Your task to perform on an android device: uninstall "Speedtest by Ookla" Image 0: 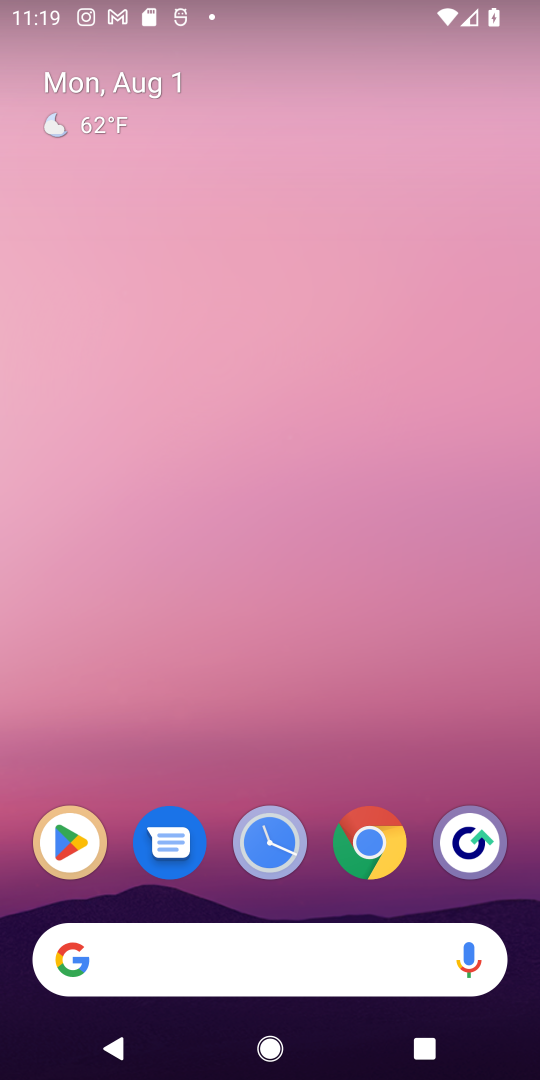
Step 0: click (60, 848)
Your task to perform on an android device: uninstall "Speedtest by Ookla" Image 1: 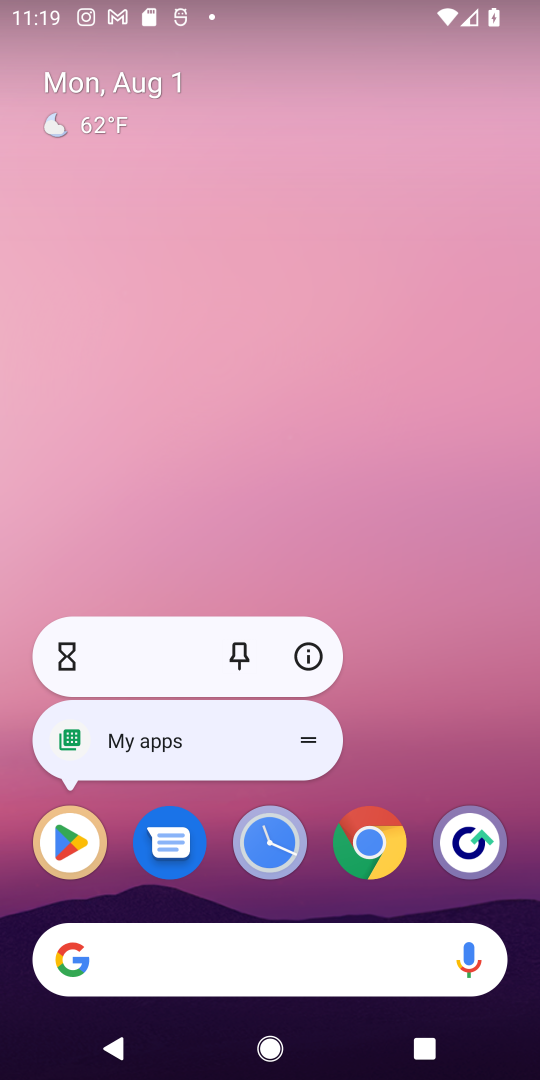
Step 1: click (58, 845)
Your task to perform on an android device: uninstall "Speedtest by Ookla" Image 2: 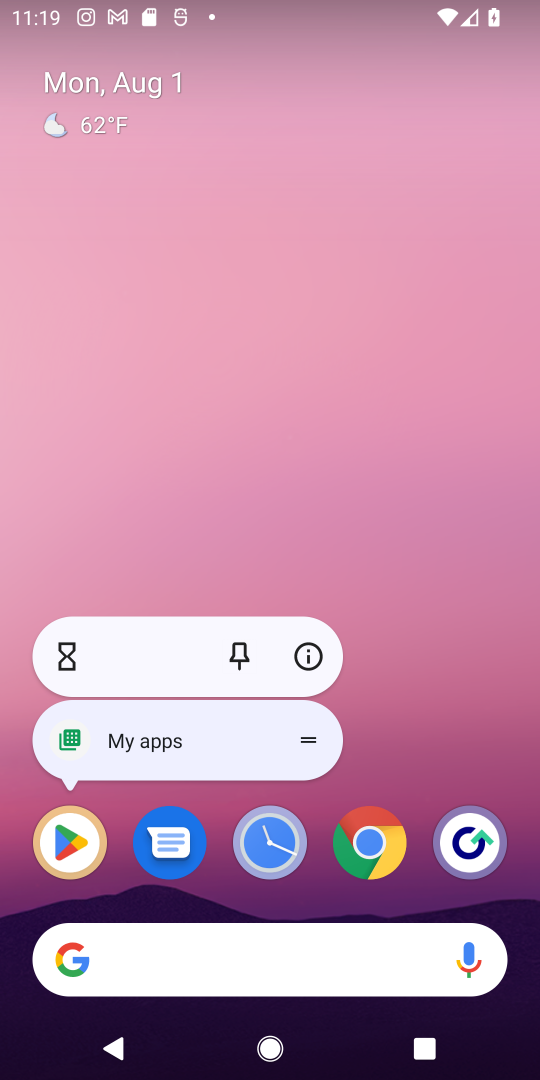
Step 2: click (70, 845)
Your task to perform on an android device: uninstall "Speedtest by Ookla" Image 3: 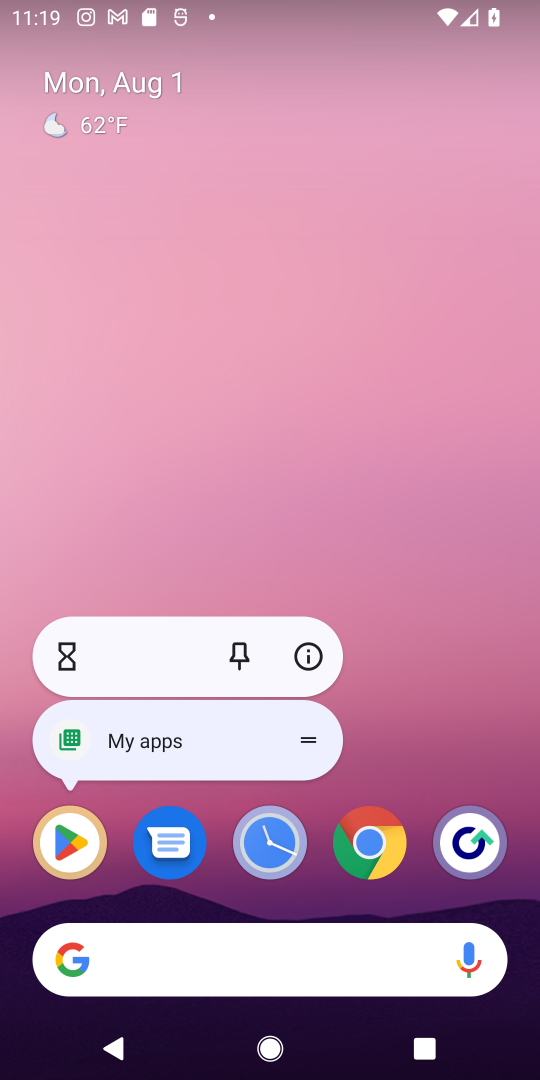
Step 3: click (69, 860)
Your task to perform on an android device: uninstall "Speedtest by Ookla" Image 4: 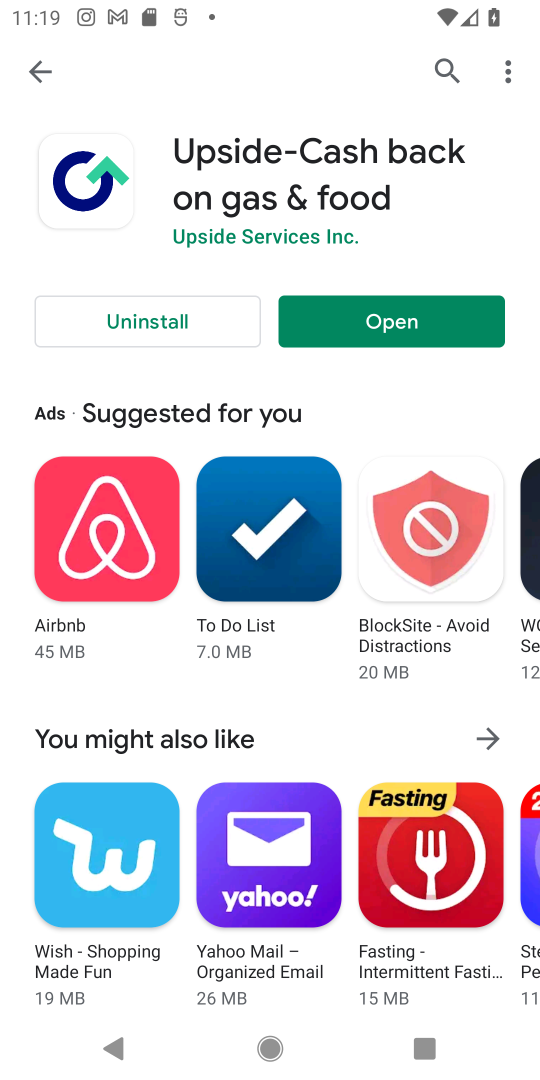
Step 4: click (450, 66)
Your task to perform on an android device: uninstall "Speedtest by Ookla" Image 5: 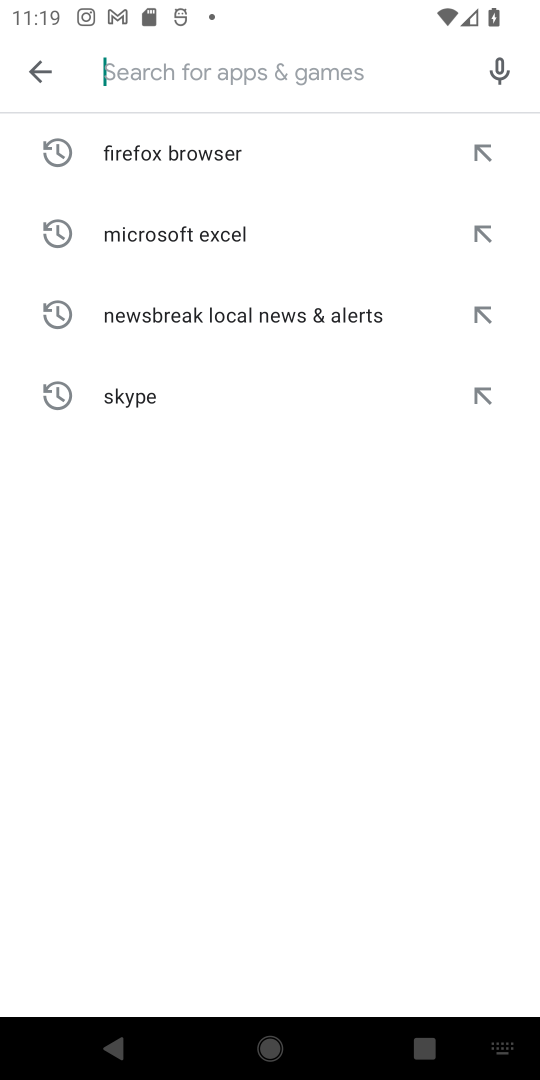
Step 5: click (169, 67)
Your task to perform on an android device: uninstall "Speedtest by Ookla" Image 6: 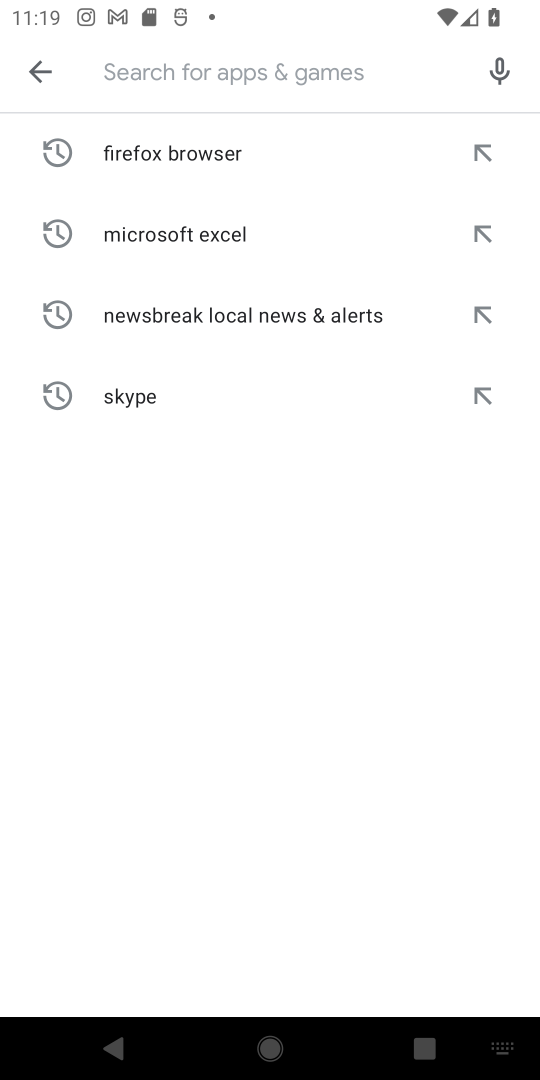
Step 6: type "Speedtest by Ookla"
Your task to perform on an android device: uninstall "Speedtest by Ookla" Image 7: 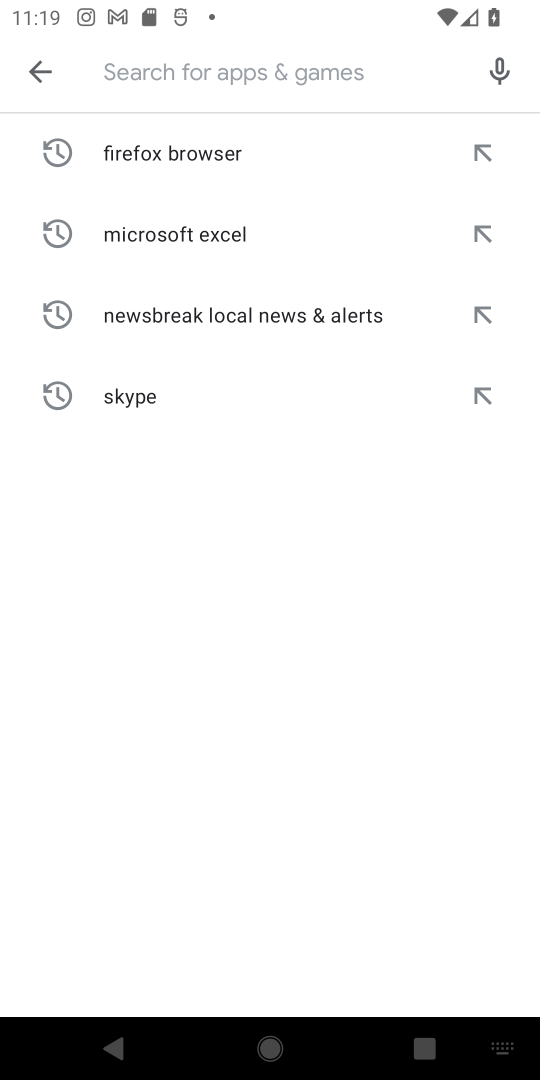
Step 7: click (231, 609)
Your task to perform on an android device: uninstall "Speedtest by Ookla" Image 8: 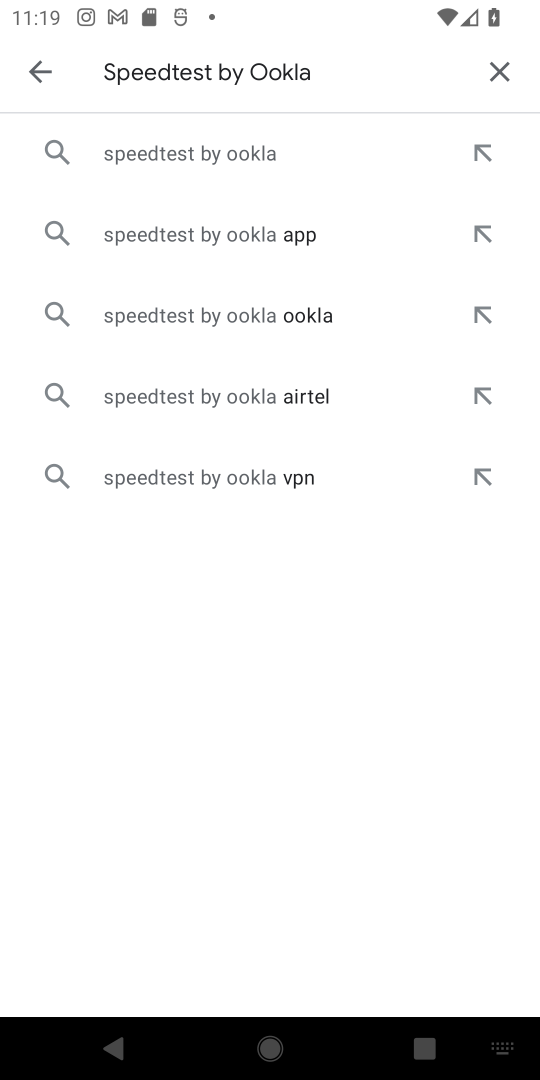
Step 8: click (247, 158)
Your task to perform on an android device: uninstall "Speedtest by Ookla" Image 9: 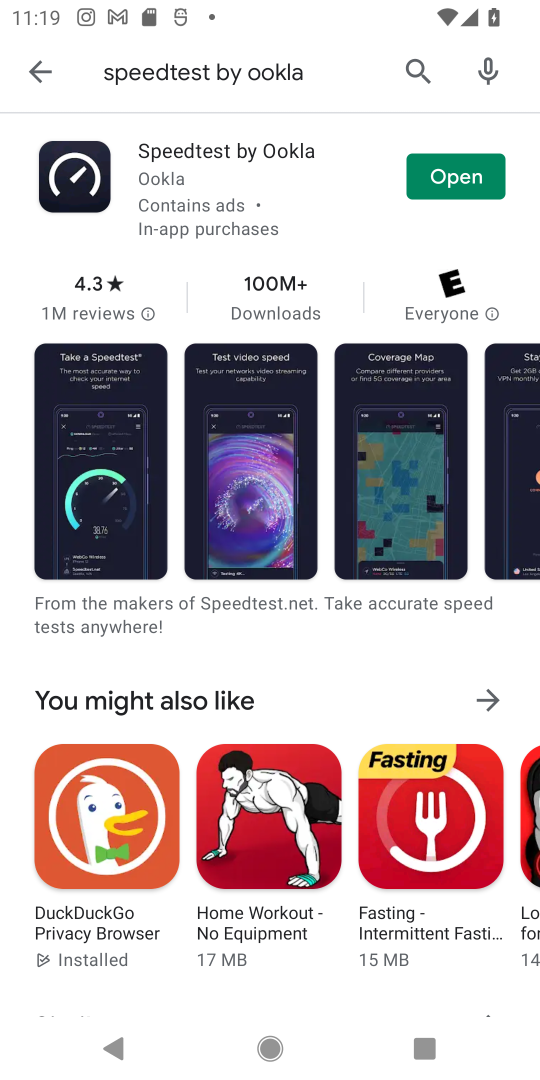
Step 9: click (195, 198)
Your task to perform on an android device: uninstall "Speedtest by Ookla" Image 10: 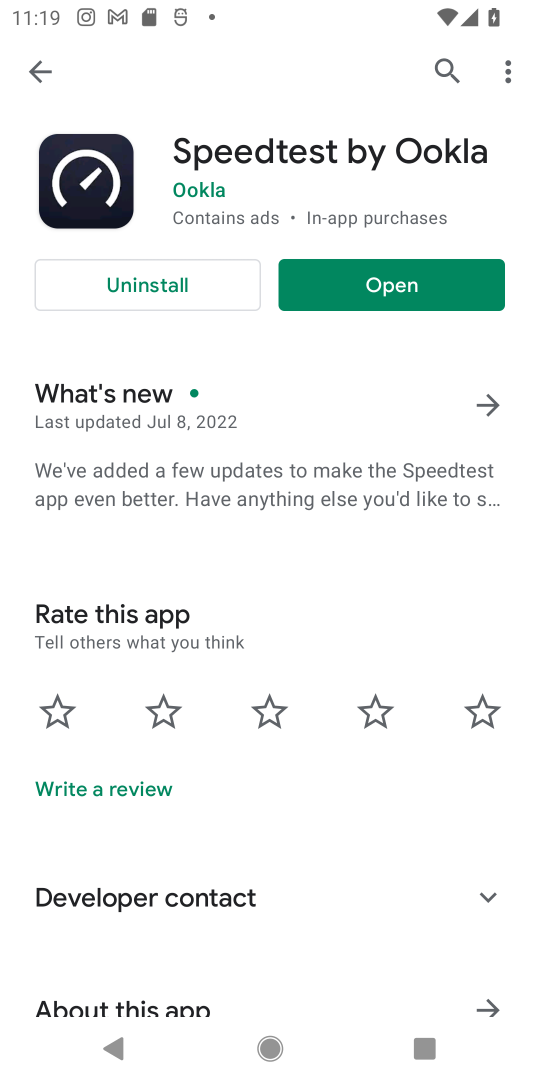
Step 10: click (158, 279)
Your task to perform on an android device: uninstall "Speedtest by Ookla" Image 11: 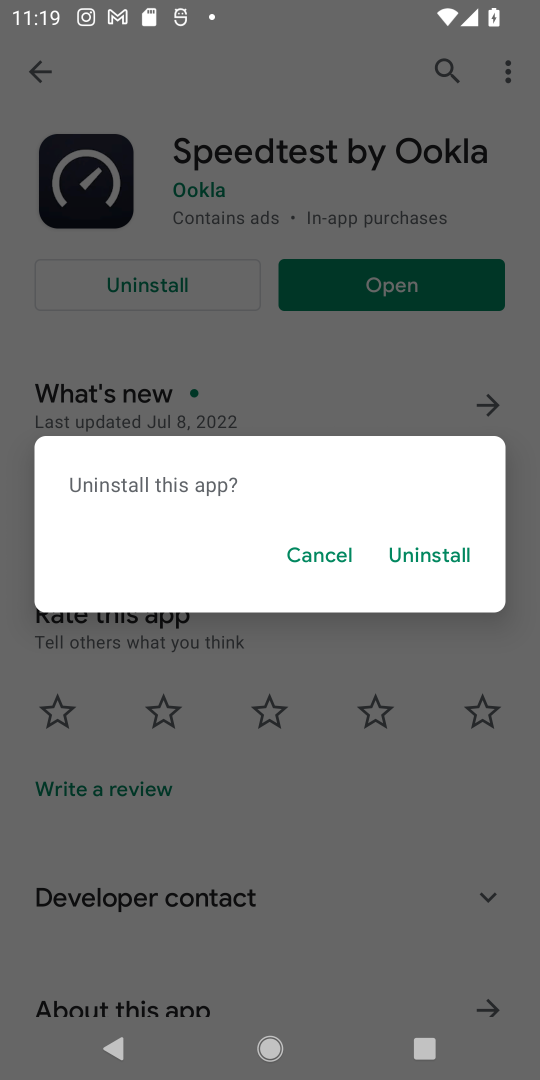
Step 11: click (427, 550)
Your task to perform on an android device: uninstall "Speedtest by Ookla" Image 12: 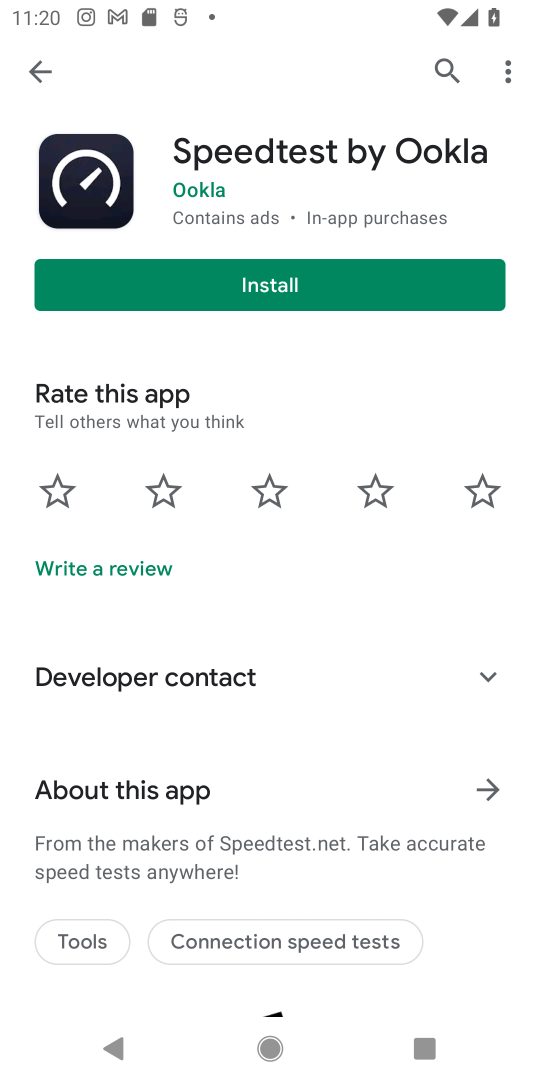
Step 12: task complete